Your task to perform on an android device: Go to battery settings Image 0: 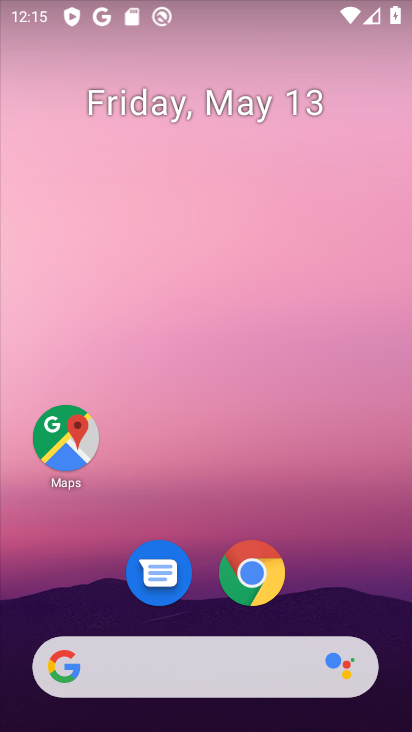
Step 0: drag from (218, 596) to (258, 133)
Your task to perform on an android device: Go to battery settings Image 1: 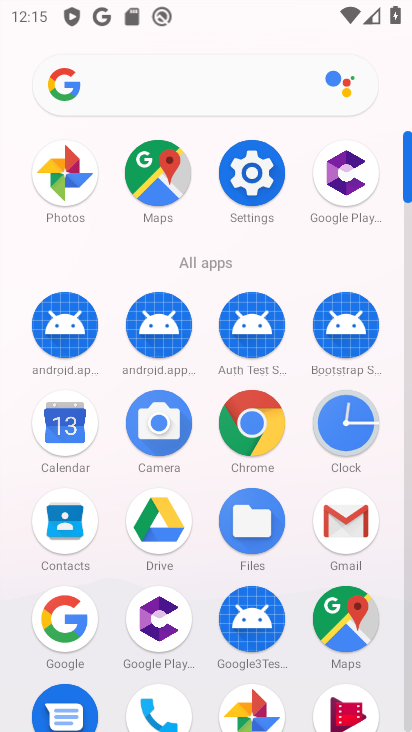
Step 1: click (267, 191)
Your task to perform on an android device: Go to battery settings Image 2: 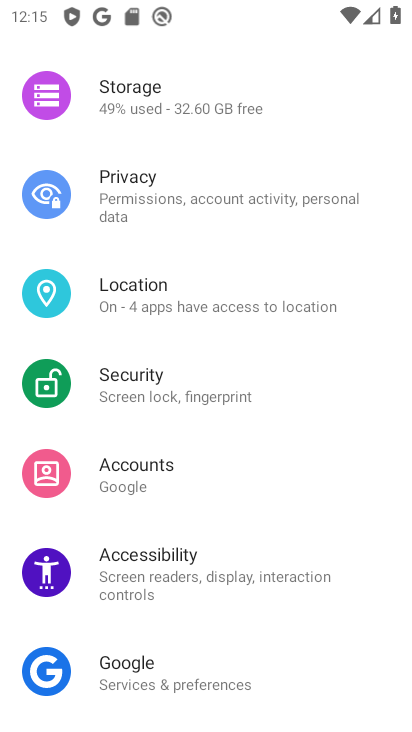
Step 2: drag from (180, 294) to (170, 541)
Your task to perform on an android device: Go to battery settings Image 3: 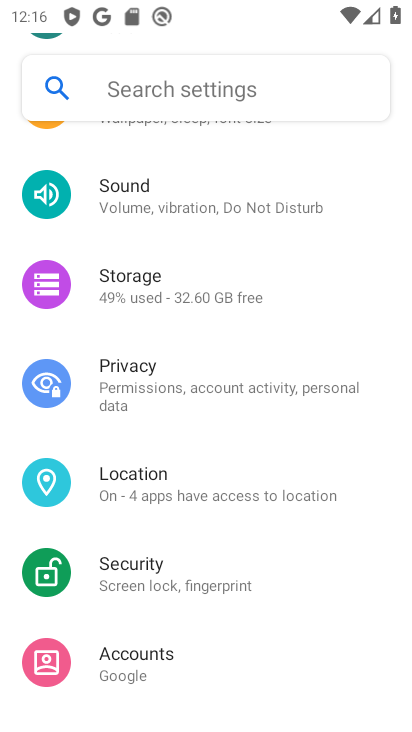
Step 3: drag from (205, 496) to (234, 727)
Your task to perform on an android device: Go to battery settings Image 4: 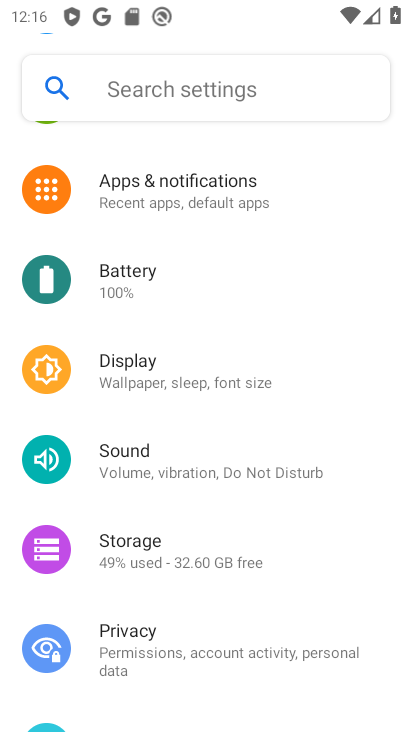
Step 4: click (215, 265)
Your task to perform on an android device: Go to battery settings Image 5: 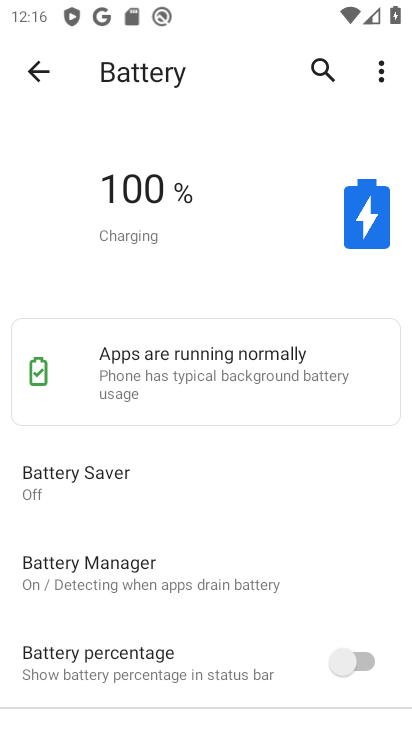
Step 5: task complete